Your task to perform on an android device: turn off data saver in the chrome app Image 0: 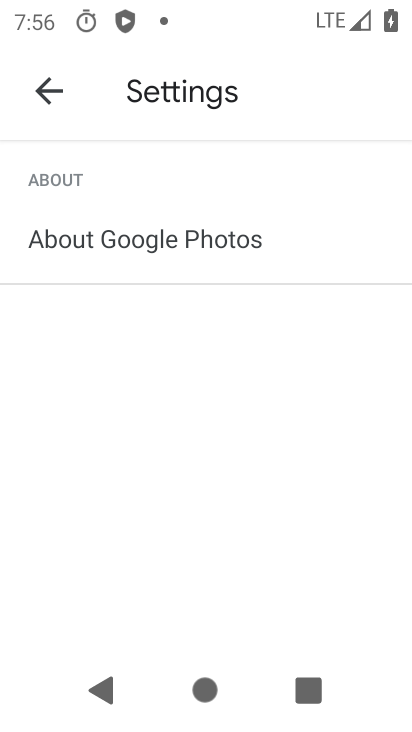
Step 0: press home button
Your task to perform on an android device: turn off data saver in the chrome app Image 1: 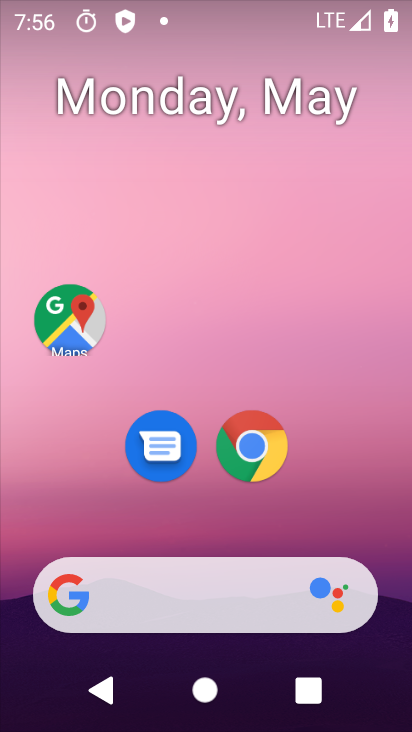
Step 1: click (261, 453)
Your task to perform on an android device: turn off data saver in the chrome app Image 2: 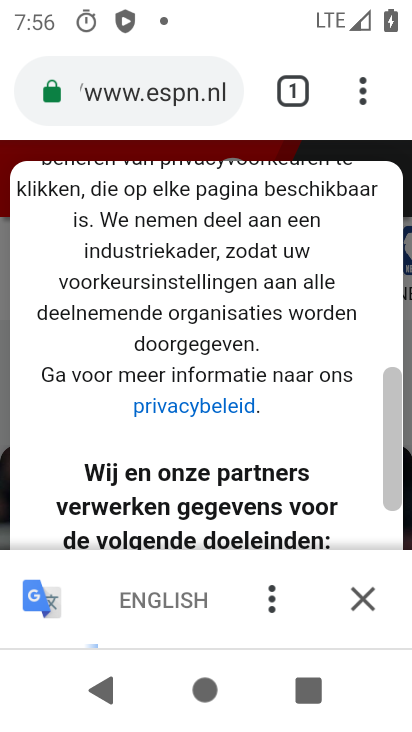
Step 2: click (357, 98)
Your task to perform on an android device: turn off data saver in the chrome app Image 3: 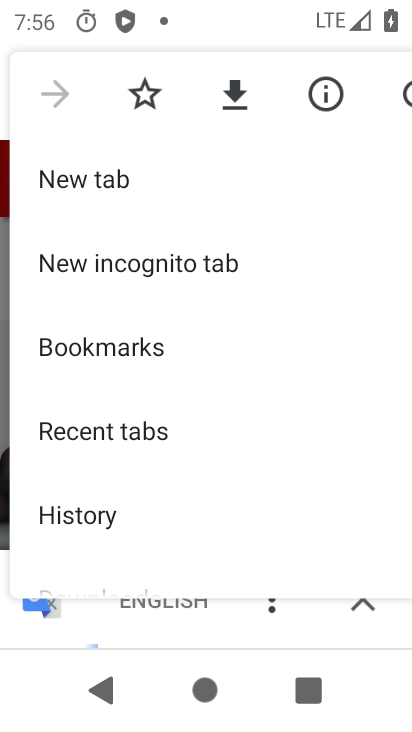
Step 3: drag from (213, 452) to (211, 177)
Your task to perform on an android device: turn off data saver in the chrome app Image 4: 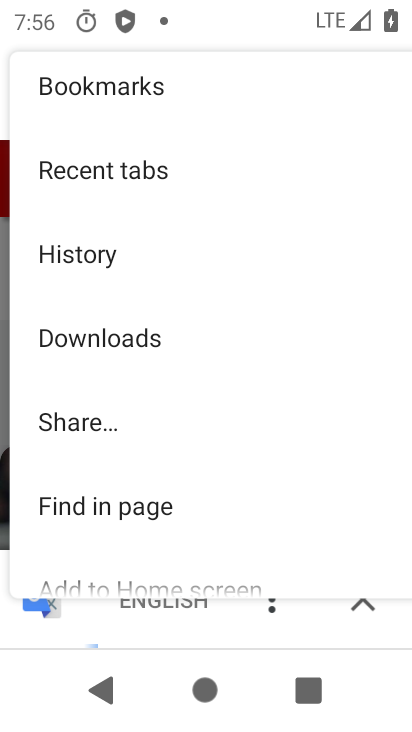
Step 4: drag from (203, 482) to (211, 104)
Your task to perform on an android device: turn off data saver in the chrome app Image 5: 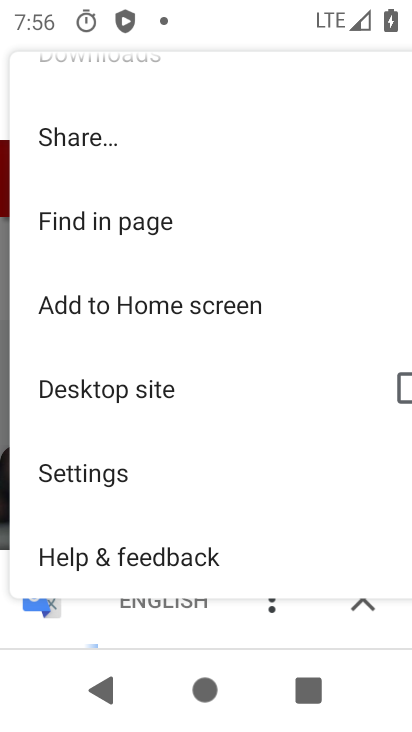
Step 5: click (115, 472)
Your task to perform on an android device: turn off data saver in the chrome app Image 6: 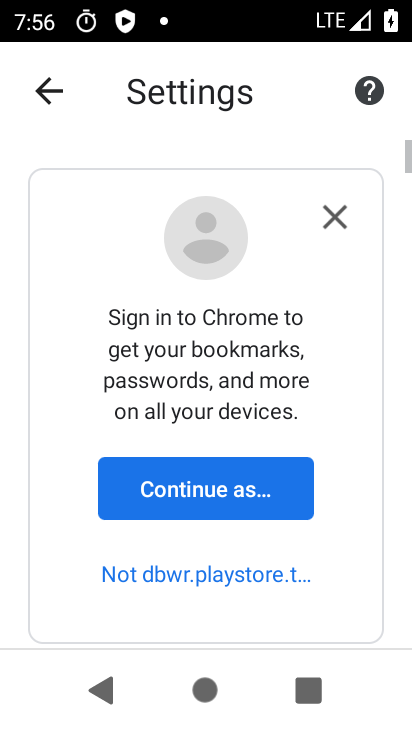
Step 6: drag from (237, 544) to (240, 5)
Your task to perform on an android device: turn off data saver in the chrome app Image 7: 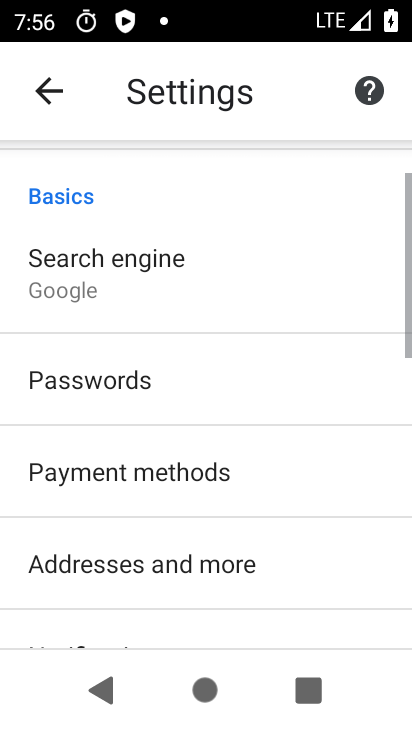
Step 7: drag from (172, 499) to (183, 7)
Your task to perform on an android device: turn off data saver in the chrome app Image 8: 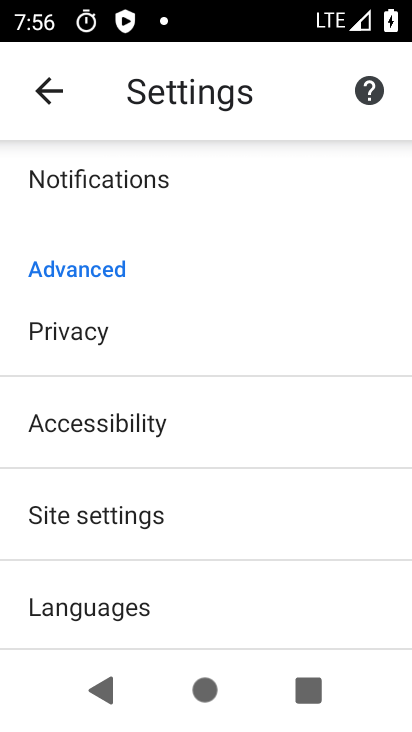
Step 8: drag from (190, 506) to (208, 151)
Your task to perform on an android device: turn off data saver in the chrome app Image 9: 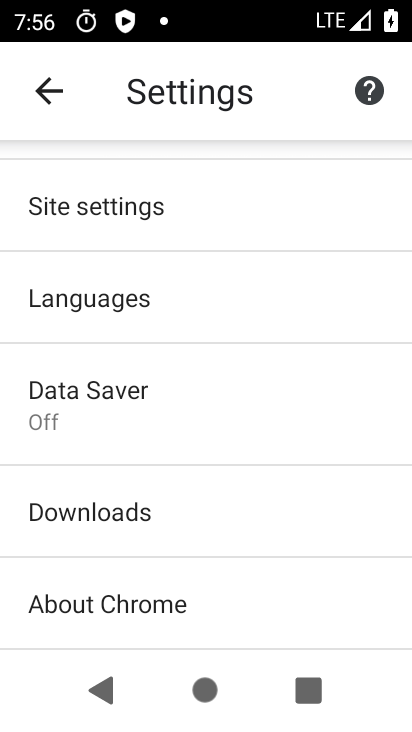
Step 9: click (74, 397)
Your task to perform on an android device: turn off data saver in the chrome app Image 10: 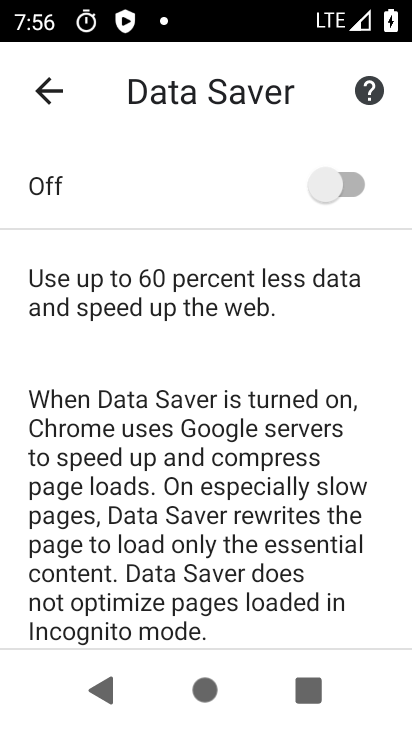
Step 10: task complete